Your task to perform on an android device: turn off priority inbox in the gmail app Image 0: 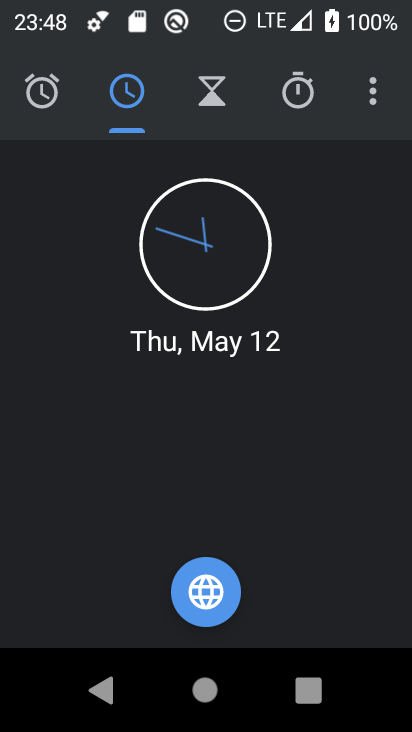
Step 0: press home button
Your task to perform on an android device: turn off priority inbox in the gmail app Image 1: 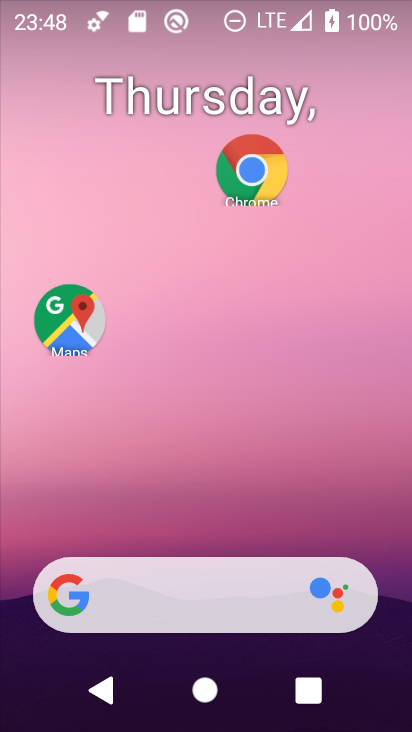
Step 1: drag from (182, 554) to (185, 274)
Your task to perform on an android device: turn off priority inbox in the gmail app Image 2: 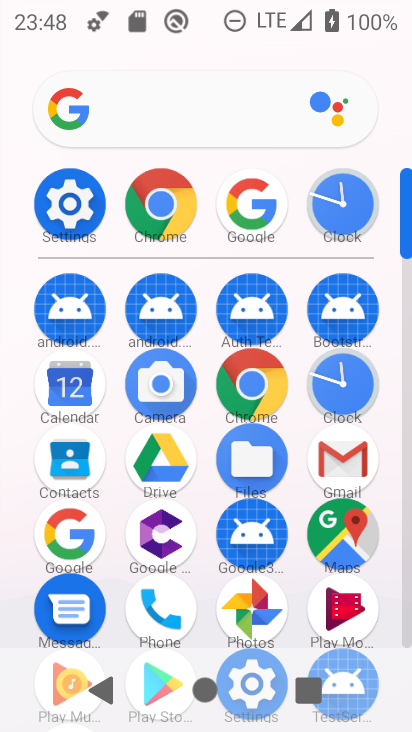
Step 2: click (352, 472)
Your task to perform on an android device: turn off priority inbox in the gmail app Image 3: 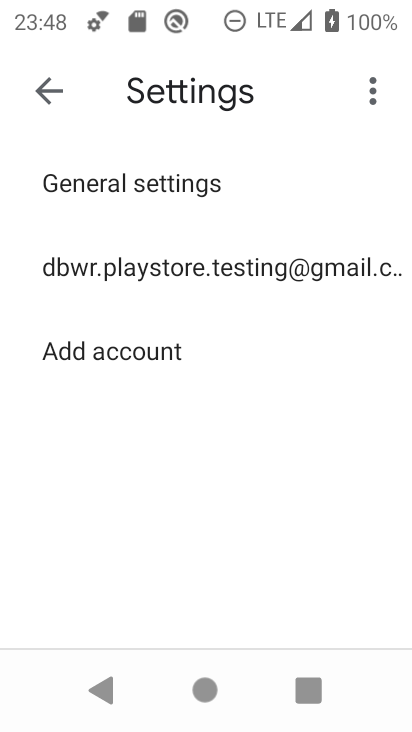
Step 3: click (147, 261)
Your task to perform on an android device: turn off priority inbox in the gmail app Image 4: 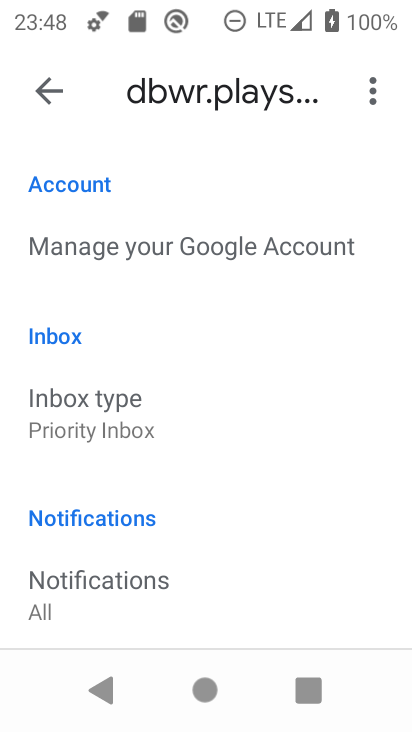
Step 4: click (91, 421)
Your task to perform on an android device: turn off priority inbox in the gmail app Image 5: 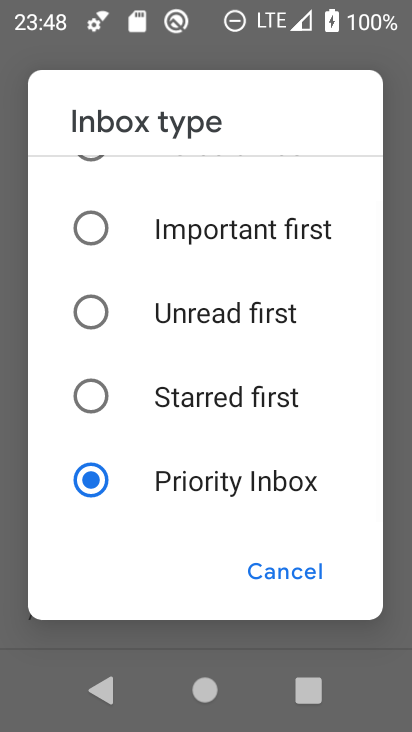
Step 5: click (99, 396)
Your task to perform on an android device: turn off priority inbox in the gmail app Image 6: 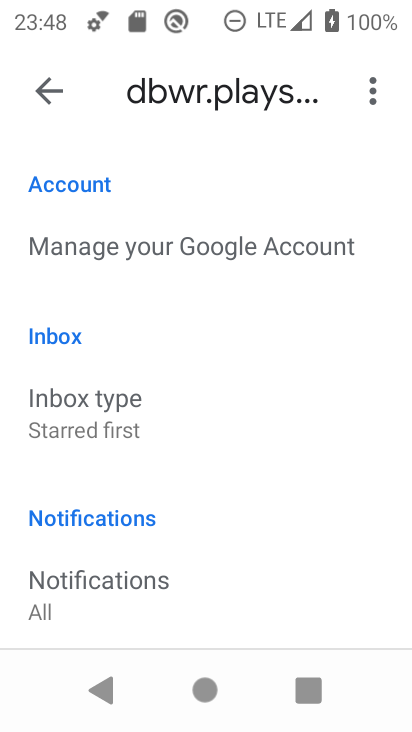
Step 6: task complete